Your task to perform on an android device: turn on showing notifications on the lock screen Image 0: 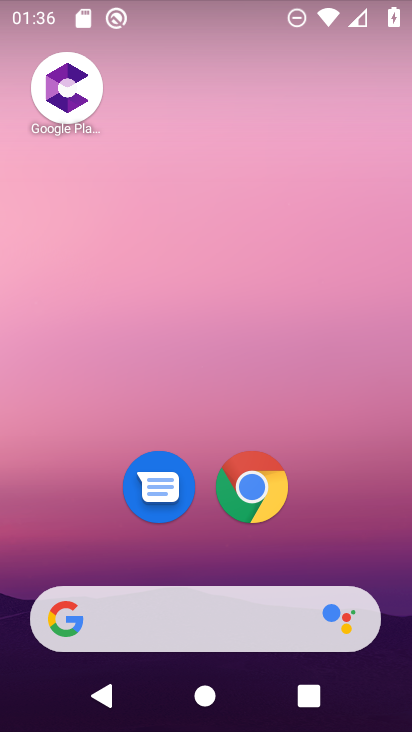
Step 0: drag from (317, 475) to (275, 193)
Your task to perform on an android device: turn on showing notifications on the lock screen Image 1: 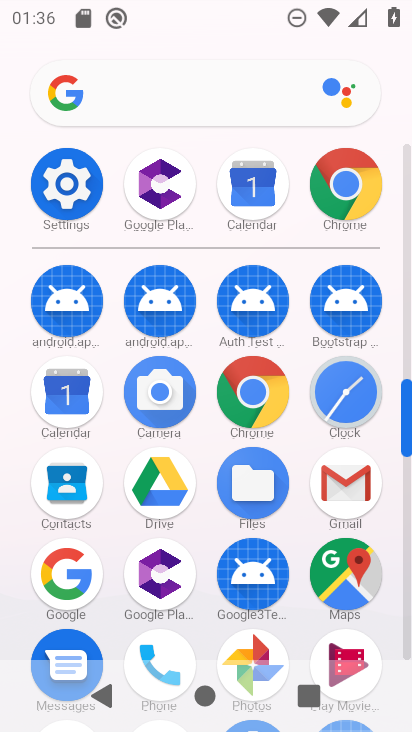
Step 1: click (68, 173)
Your task to perform on an android device: turn on showing notifications on the lock screen Image 2: 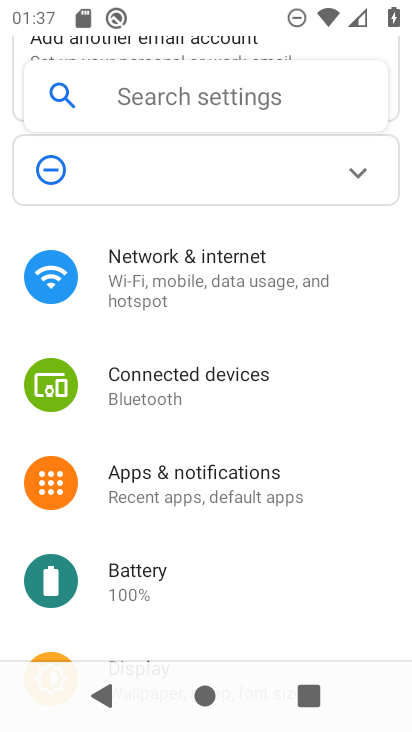
Step 2: click (178, 473)
Your task to perform on an android device: turn on showing notifications on the lock screen Image 3: 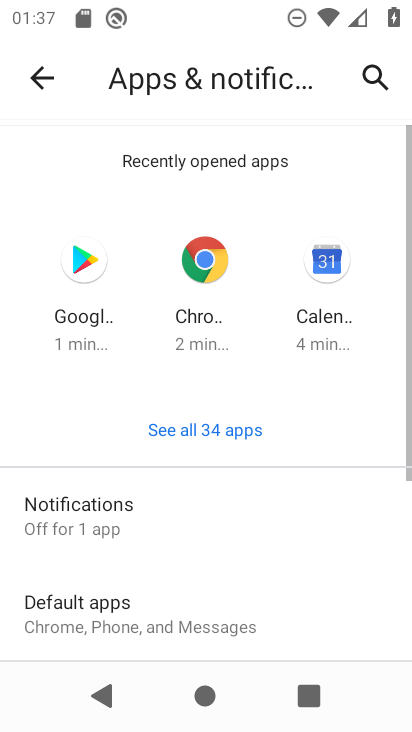
Step 3: drag from (170, 521) to (208, 301)
Your task to perform on an android device: turn on showing notifications on the lock screen Image 4: 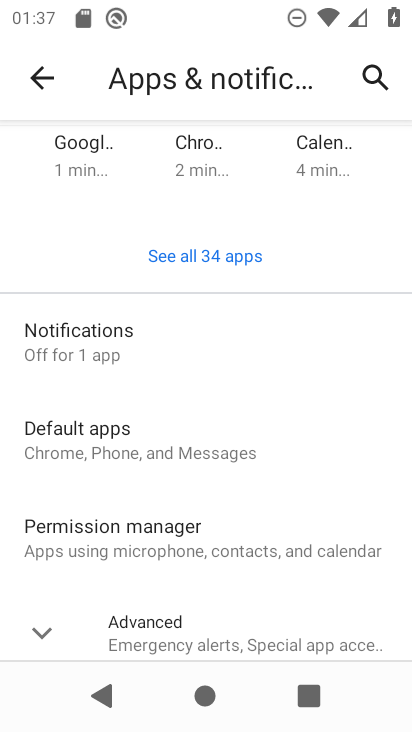
Step 4: drag from (200, 549) to (217, 384)
Your task to perform on an android device: turn on showing notifications on the lock screen Image 5: 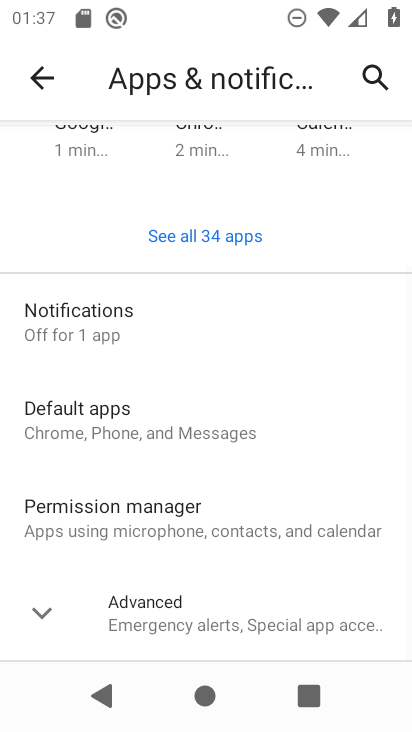
Step 5: click (141, 310)
Your task to perform on an android device: turn on showing notifications on the lock screen Image 6: 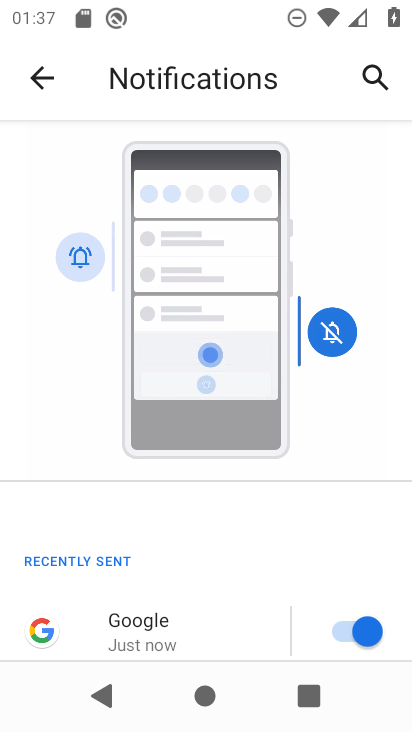
Step 6: drag from (178, 596) to (268, 232)
Your task to perform on an android device: turn on showing notifications on the lock screen Image 7: 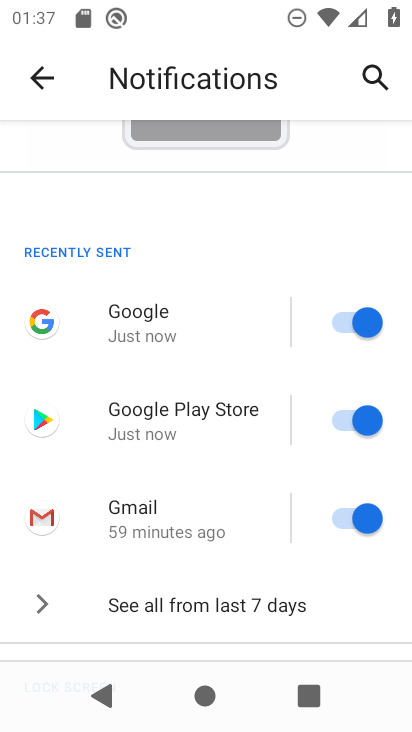
Step 7: drag from (166, 576) to (239, 237)
Your task to perform on an android device: turn on showing notifications on the lock screen Image 8: 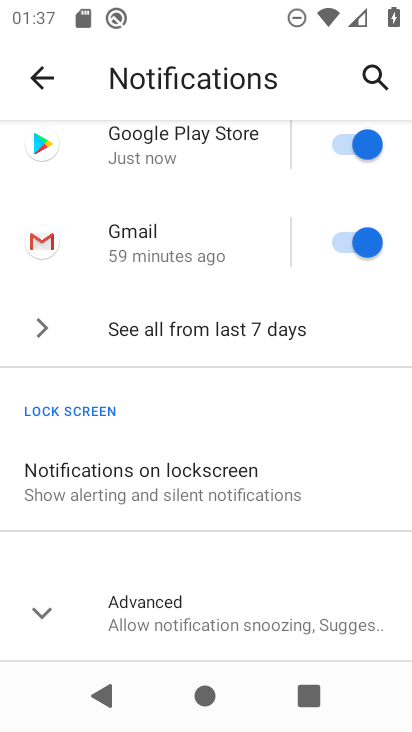
Step 8: click (193, 490)
Your task to perform on an android device: turn on showing notifications on the lock screen Image 9: 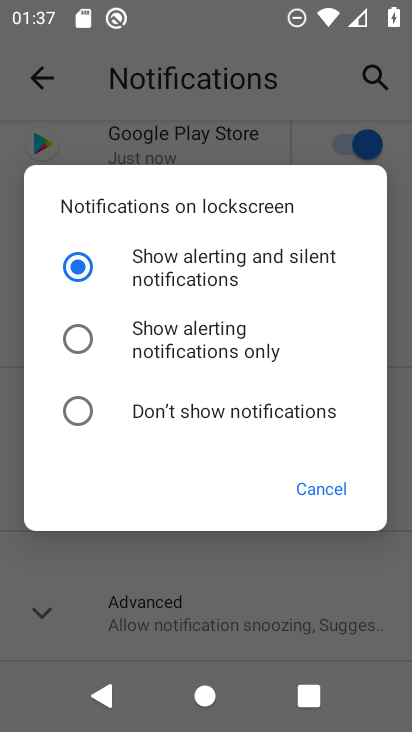
Step 9: task complete